Your task to perform on an android device: What's on my calendar today? Image 0: 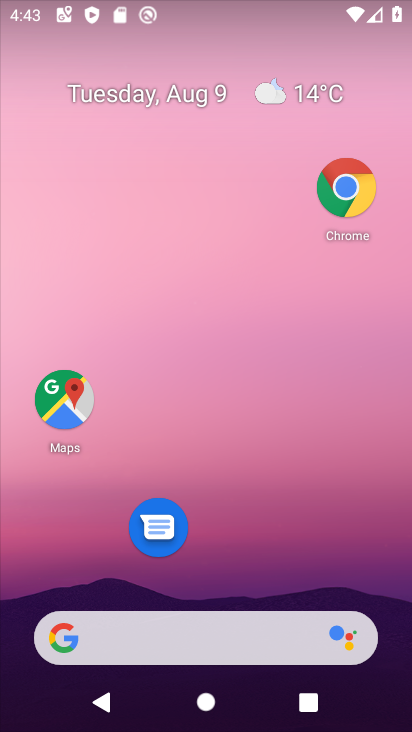
Step 0: click (140, 94)
Your task to perform on an android device: What's on my calendar today? Image 1: 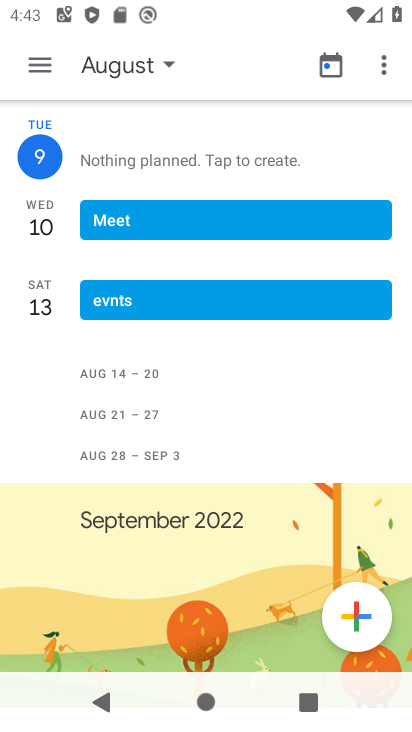
Step 1: click (131, 72)
Your task to perform on an android device: What's on my calendar today? Image 2: 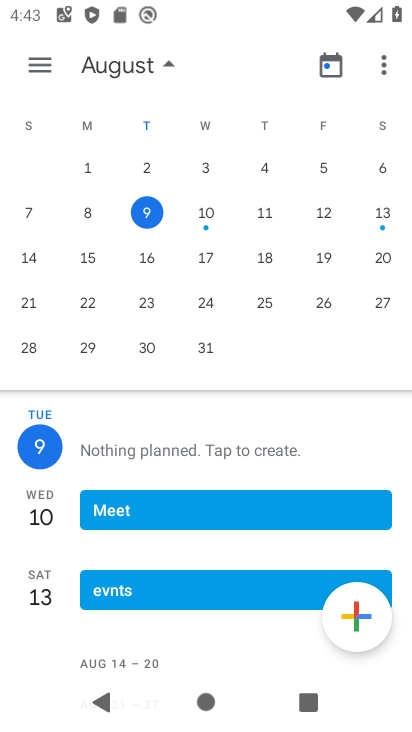
Step 2: task complete